Your task to perform on an android device: turn on improve location accuracy Image 0: 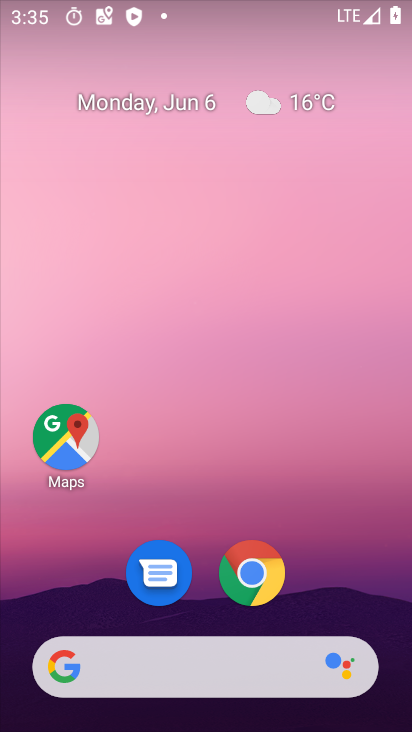
Step 0: drag from (377, 598) to (357, 132)
Your task to perform on an android device: turn on improve location accuracy Image 1: 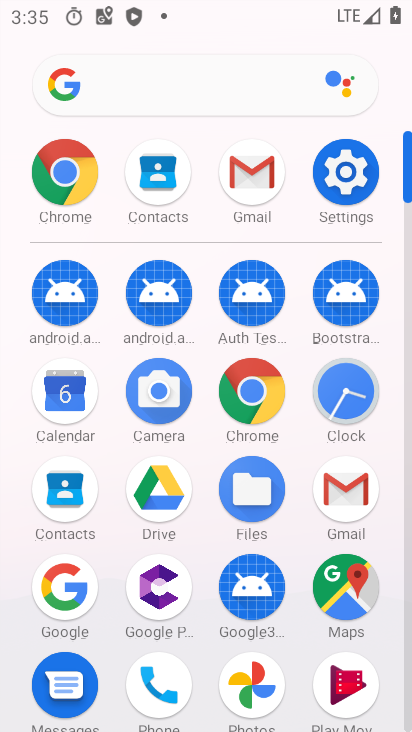
Step 1: click (354, 184)
Your task to perform on an android device: turn on improve location accuracy Image 2: 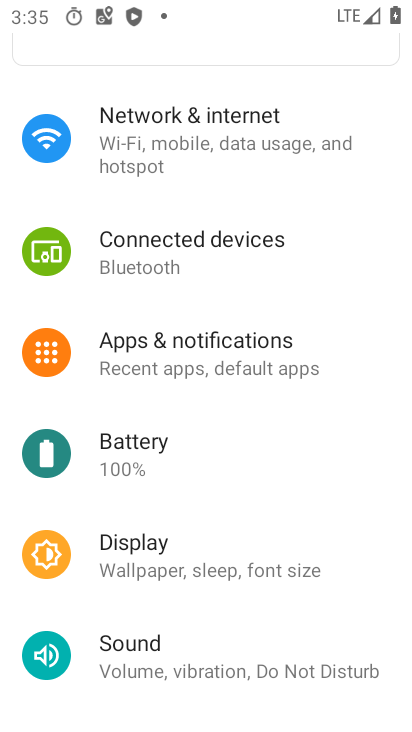
Step 2: drag from (358, 455) to (360, 395)
Your task to perform on an android device: turn on improve location accuracy Image 3: 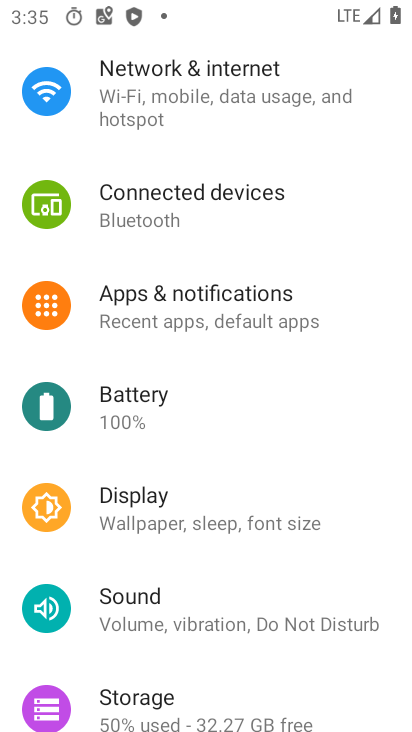
Step 3: drag from (372, 527) to (358, 355)
Your task to perform on an android device: turn on improve location accuracy Image 4: 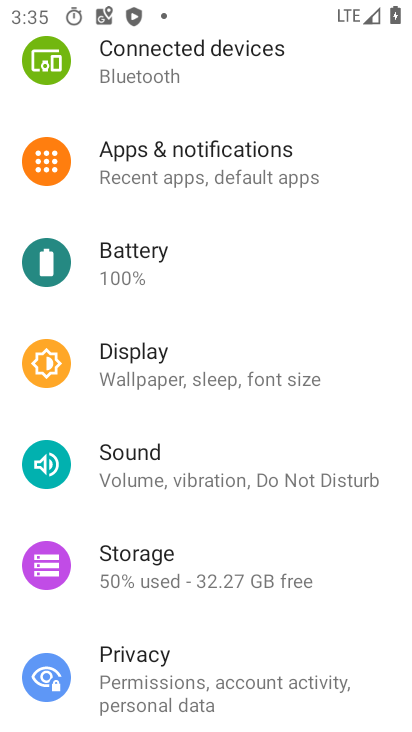
Step 4: drag from (350, 532) to (335, 360)
Your task to perform on an android device: turn on improve location accuracy Image 5: 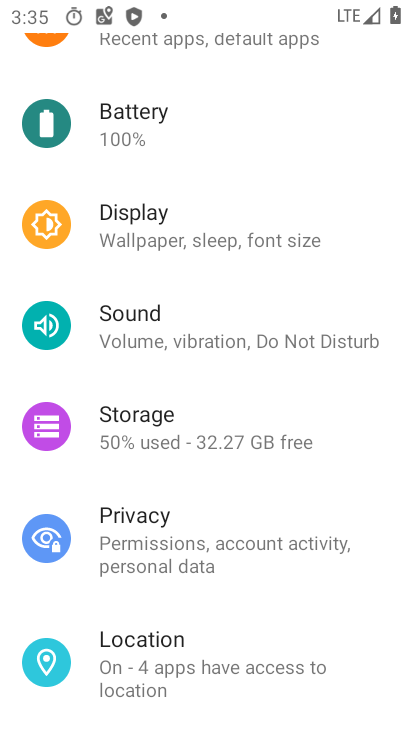
Step 5: drag from (337, 458) to (337, 237)
Your task to perform on an android device: turn on improve location accuracy Image 6: 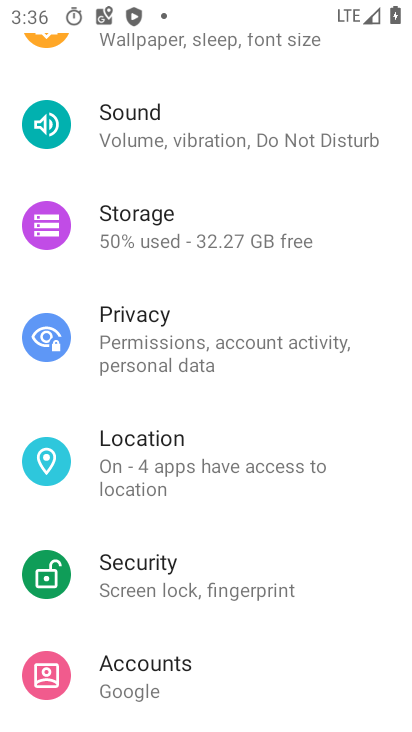
Step 6: drag from (340, 529) to (340, 421)
Your task to perform on an android device: turn on improve location accuracy Image 7: 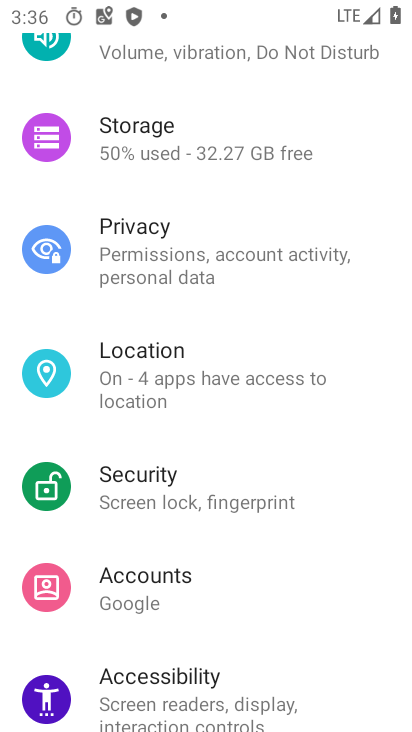
Step 7: click (255, 380)
Your task to perform on an android device: turn on improve location accuracy Image 8: 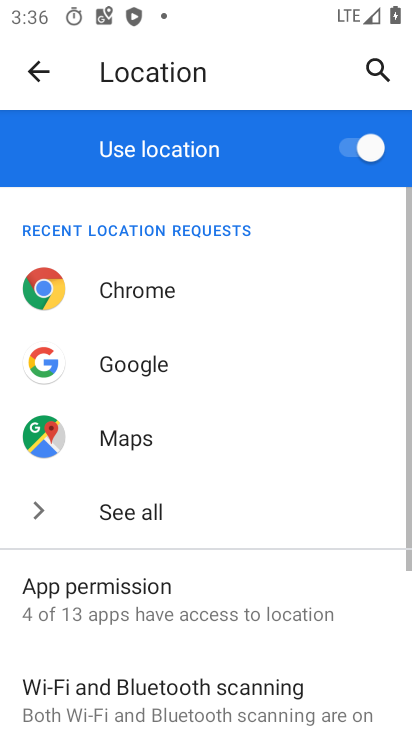
Step 8: drag from (292, 493) to (293, 344)
Your task to perform on an android device: turn on improve location accuracy Image 9: 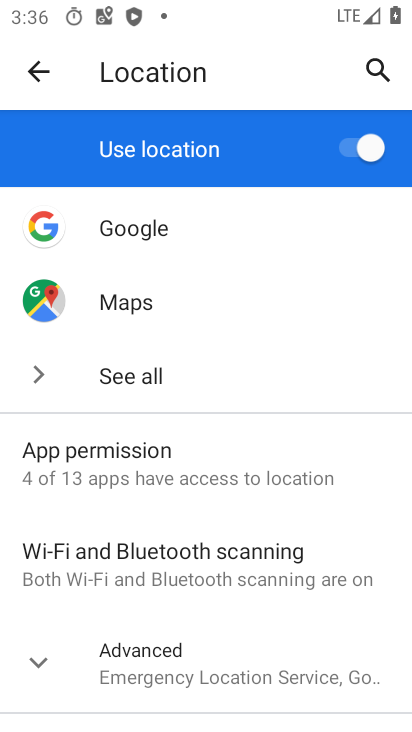
Step 9: drag from (276, 545) to (278, 405)
Your task to perform on an android device: turn on improve location accuracy Image 10: 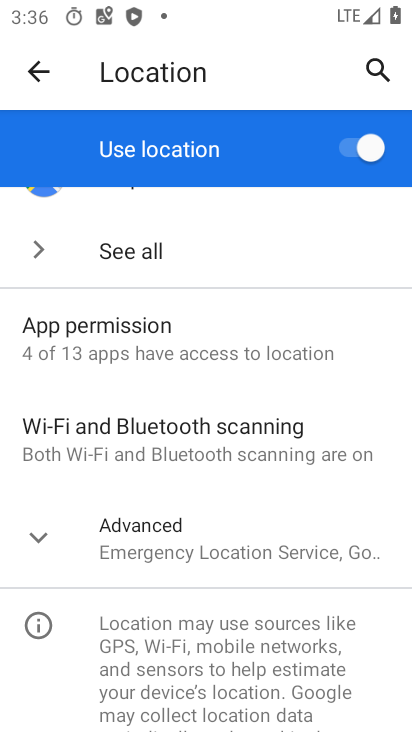
Step 10: click (272, 538)
Your task to perform on an android device: turn on improve location accuracy Image 11: 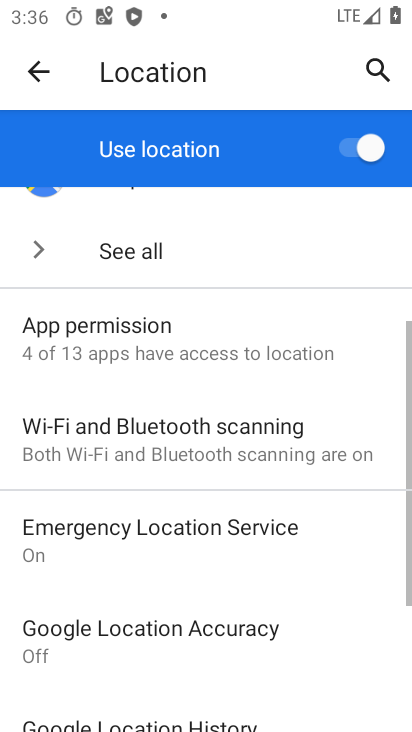
Step 11: drag from (272, 546) to (280, 426)
Your task to perform on an android device: turn on improve location accuracy Image 12: 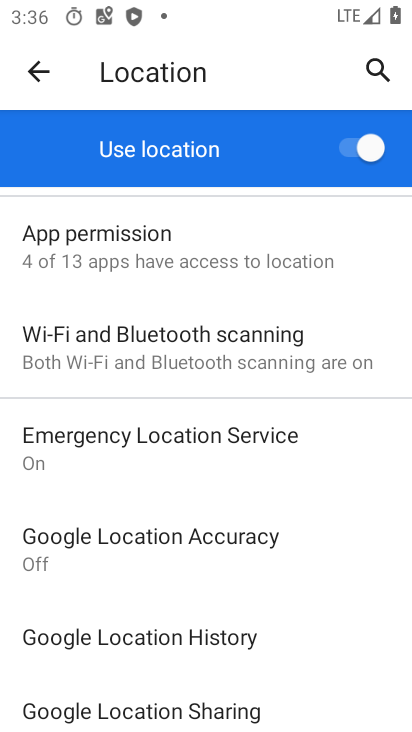
Step 12: click (262, 551)
Your task to perform on an android device: turn on improve location accuracy Image 13: 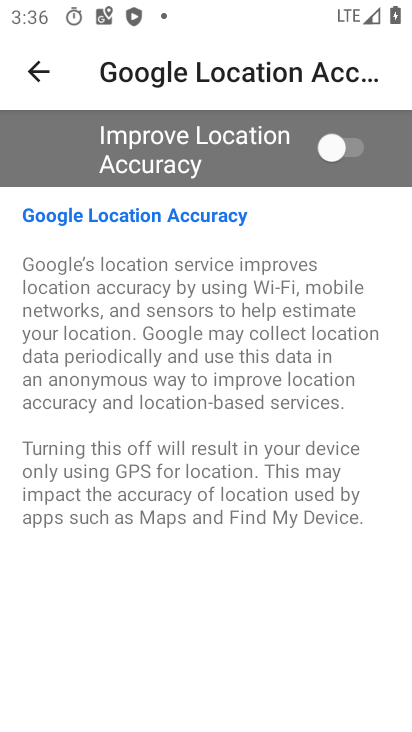
Step 13: click (328, 152)
Your task to perform on an android device: turn on improve location accuracy Image 14: 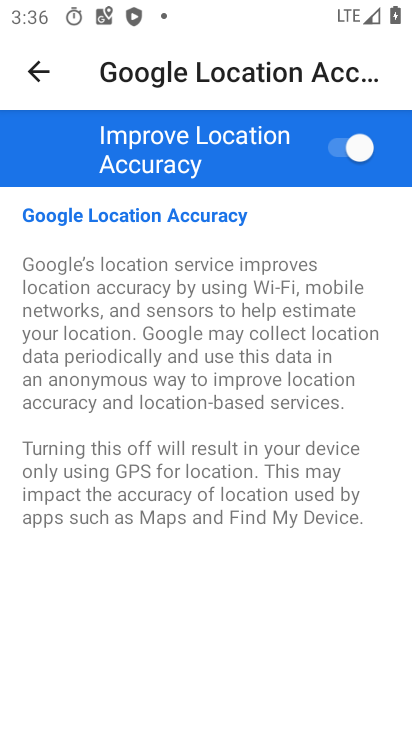
Step 14: task complete